Your task to perform on an android device: allow cookies in the chrome app Image 0: 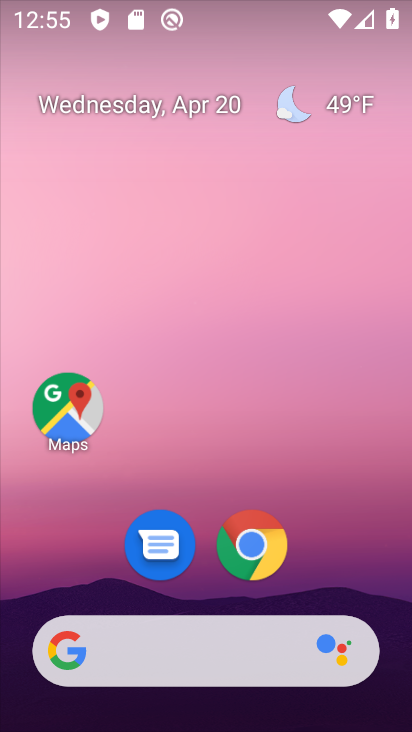
Step 0: click (272, 560)
Your task to perform on an android device: allow cookies in the chrome app Image 1: 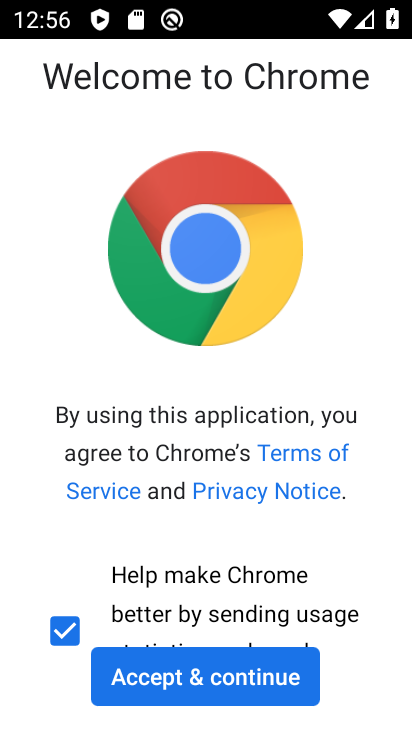
Step 1: click (199, 698)
Your task to perform on an android device: allow cookies in the chrome app Image 2: 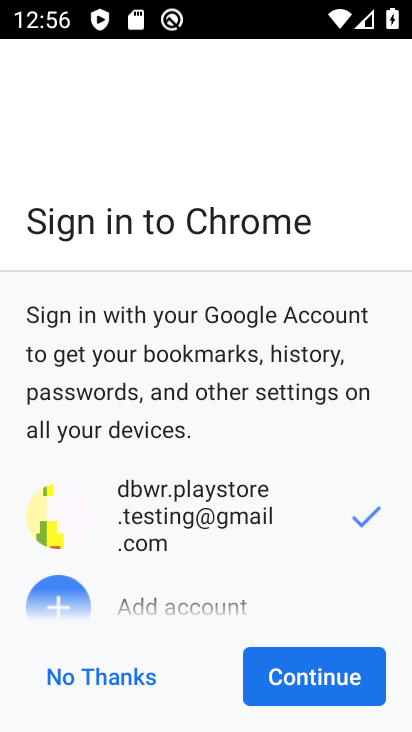
Step 2: click (318, 688)
Your task to perform on an android device: allow cookies in the chrome app Image 3: 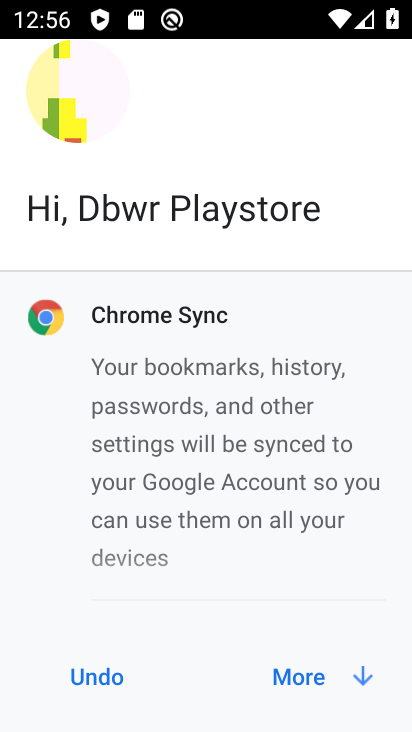
Step 3: click (318, 688)
Your task to perform on an android device: allow cookies in the chrome app Image 4: 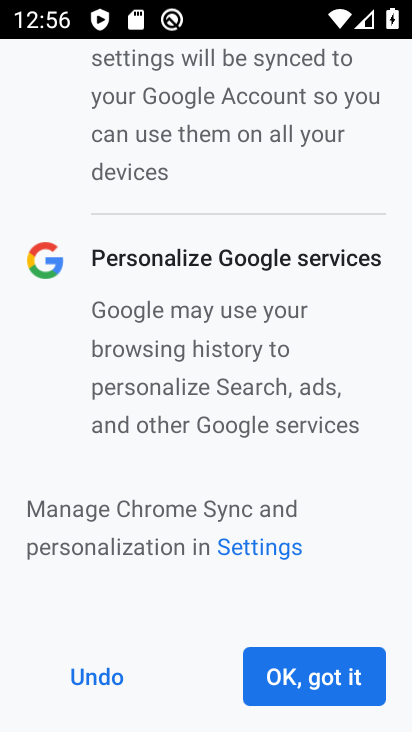
Step 4: click (318, 688)
Your task to perform on an android device: allow cookies in the chrome app Image 5: 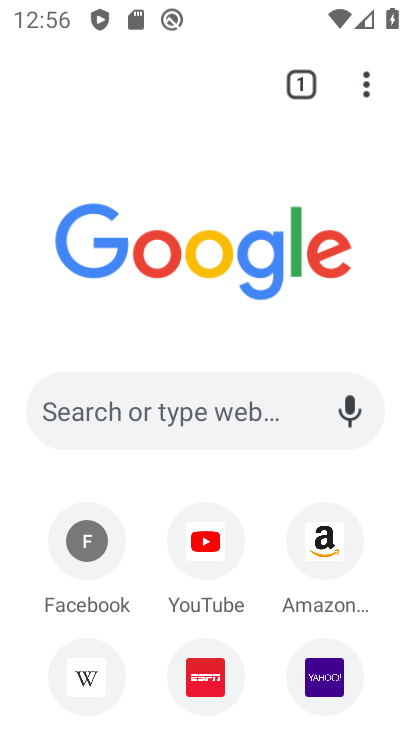
Step 5: drag from (372, 99) to (226, 582)
Your task to perform on an android device: allow cookies in the chrome app Image 6: 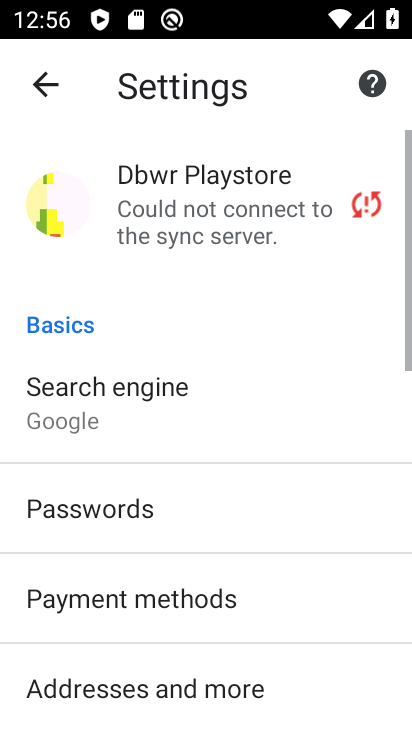
Step 6: drag from (201, 643) to (364, 216)
Your task to perform on an android device: allow cookies in the chrome app Image 7: 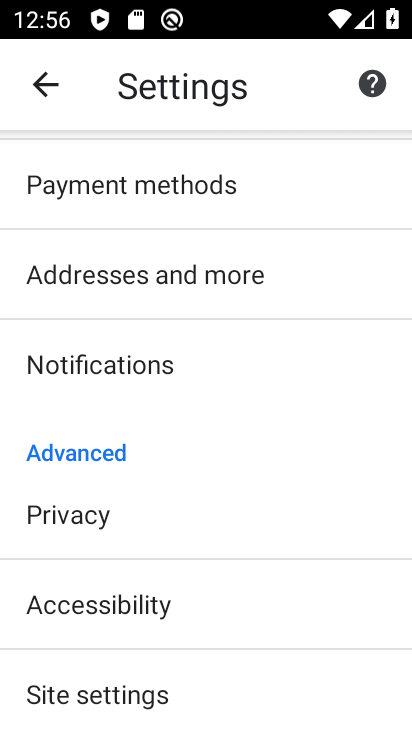
Step 7: click (149, 701)
Your task to perform on an android device: allow cookies in the chrome app Image 8: 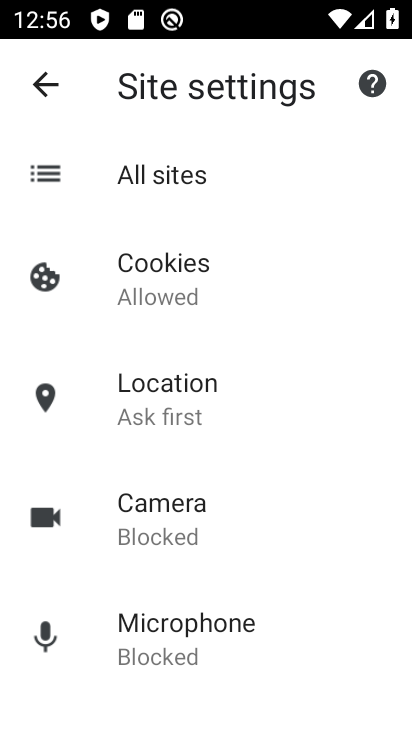
Step 8: drag from (287, 652) to (390, 270)
Your task to perform on an android device: allow cookies in the chrome app Image 9: 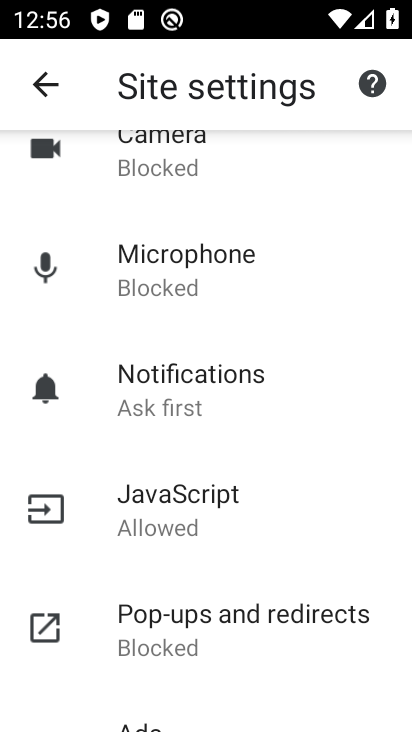
Step 9: drag from (242, 347) to (233, 638)
Your task to perform on an android device: allow cookies in the chrome app Image 10: 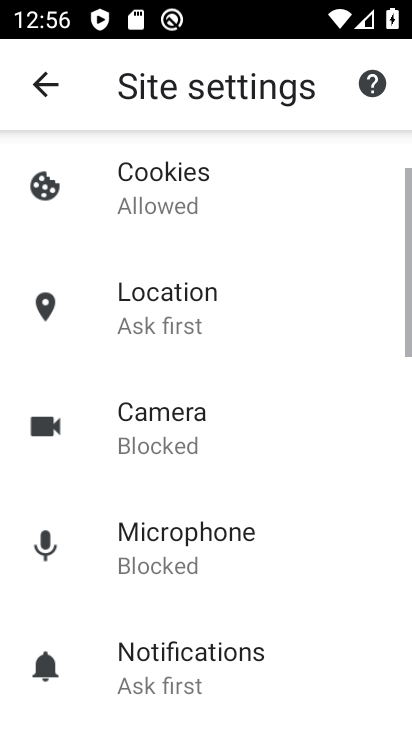
Step 10: click (221, 211)
Your task to perform on an android device: allow cookies in the chrome app Image 11: 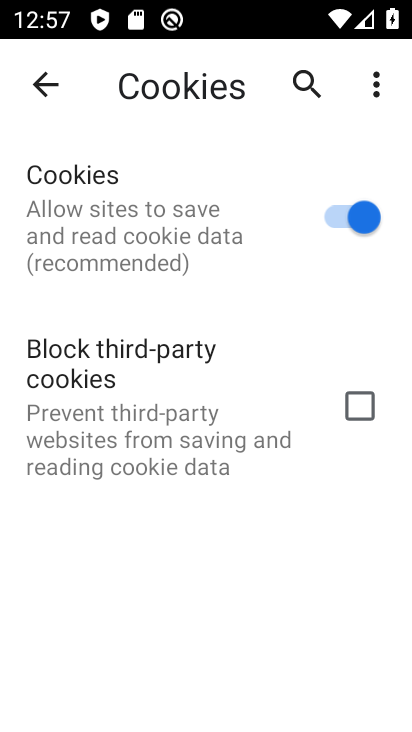
Step 11: task complete